Your task to perform on an android device: turn off location history Image 0: 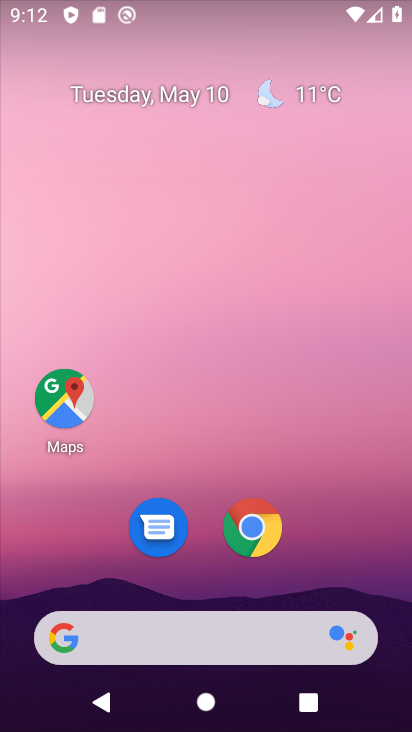
Step 0: click (365, 499)
Your task to perform on an android device: turn off location history Image 1: 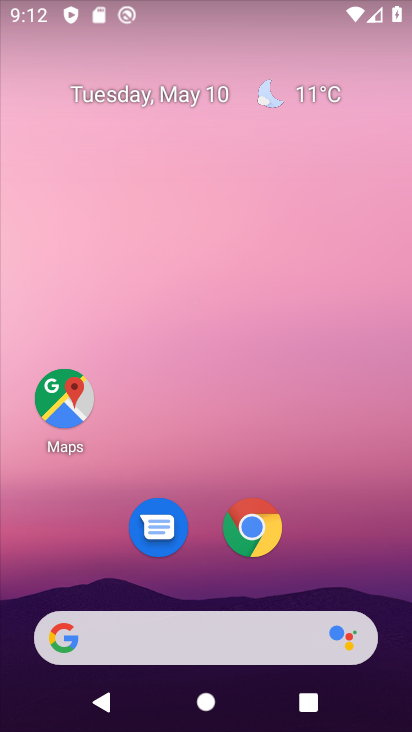
Step 1: drag from (368, 529) to (304, 185)
Your task to perform on an android device: turn off location history Image 2: 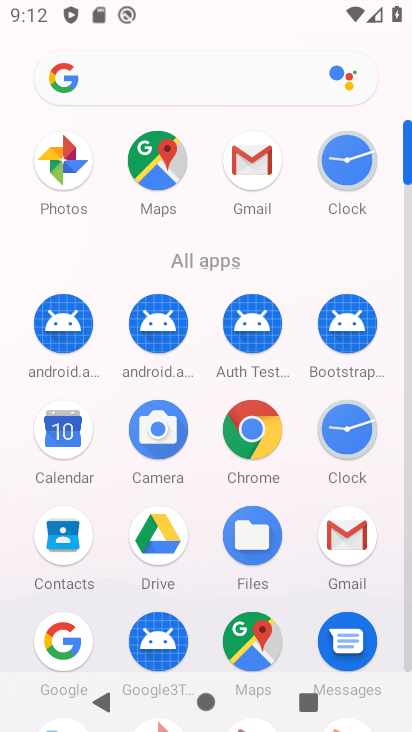
Step 2: drag from (199, 518) to (150, 227)
Your task to perform on an android device: turn off location history Image 3: 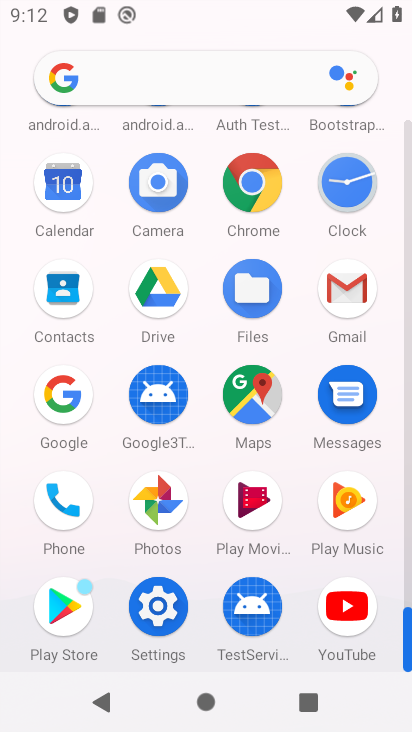
Step 3: click (160, 609)
Your task to perform on an android device: turn off location history Image 4: 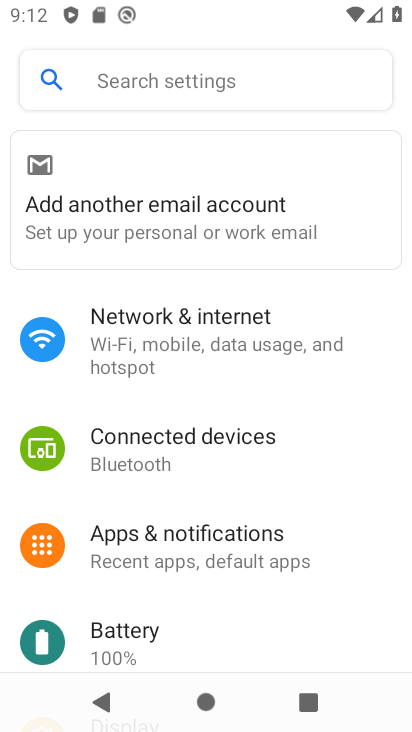
Step 4: drag from (242, 566) to (145, 170)
Your task to perform on an android device: turn off location history Image 5: 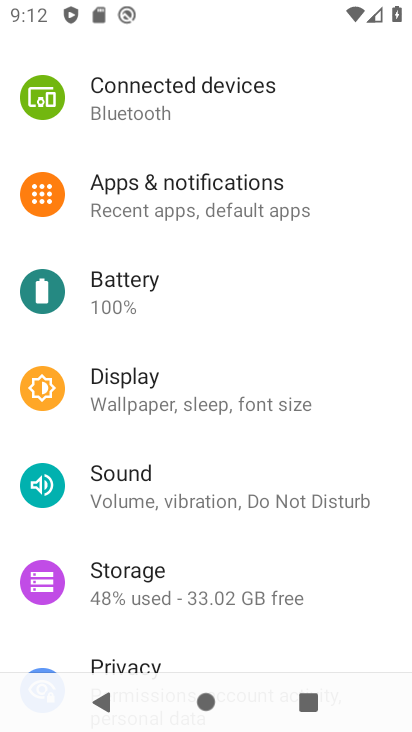
Step 5: drag from (239, 590) to (168, 287)
Your task to perform on an android device: turn off location history Image 6: 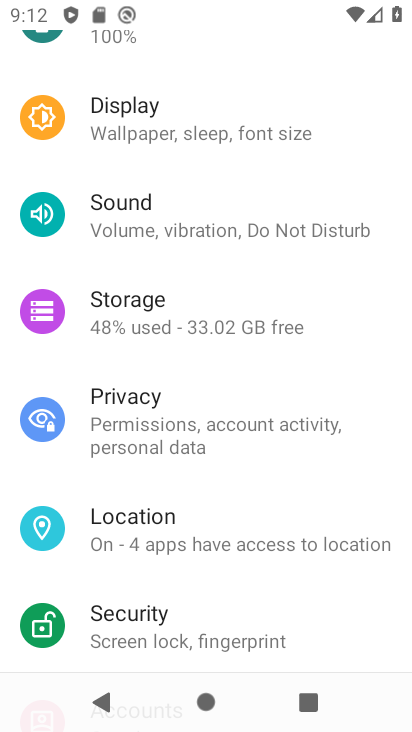
Step 6: click (246, 536)
Your task to perform on an android device: turn off location history Image 7: 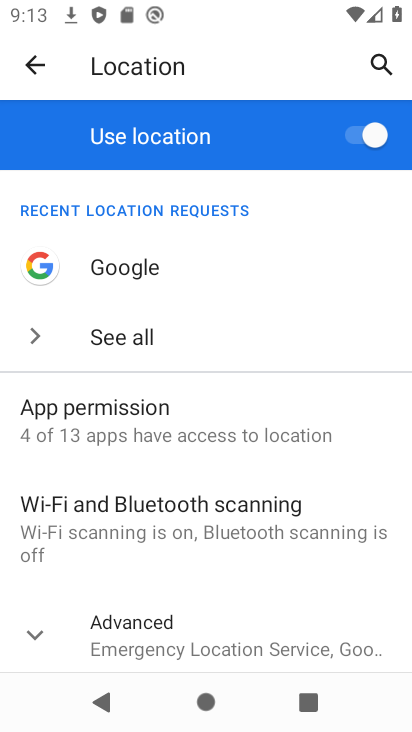
Step 7: click (244, 621)
Your task to perform on an android device: turn off location history Image 8: 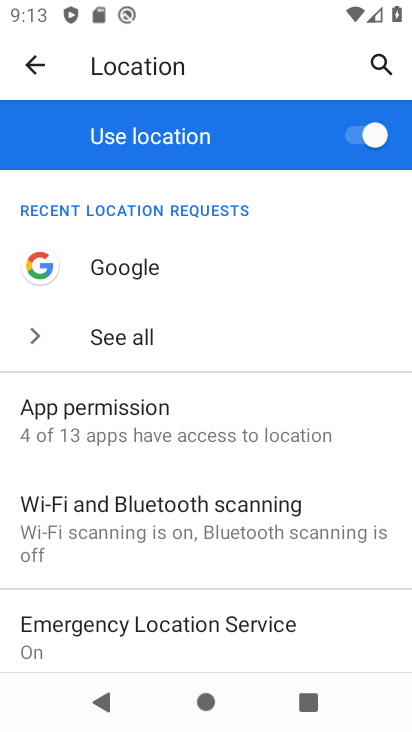
Step 8: drag from (243, 632) to (214, 397)
Your task to perform on an android device: turn off location history Image 9: 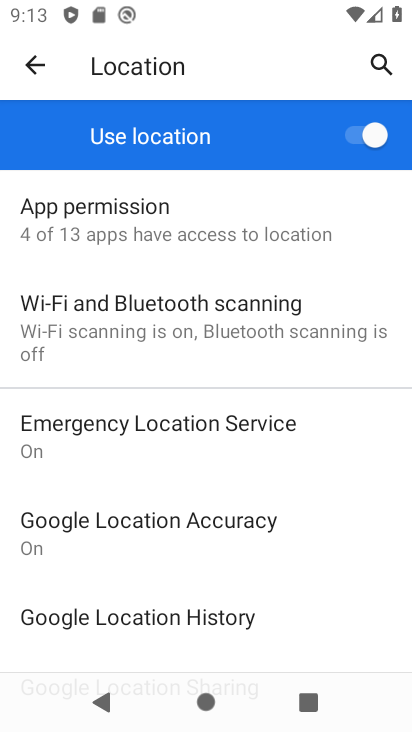
Step 9: click (241, 614)
Your task to perform on an android device: turn off location history Image 10: 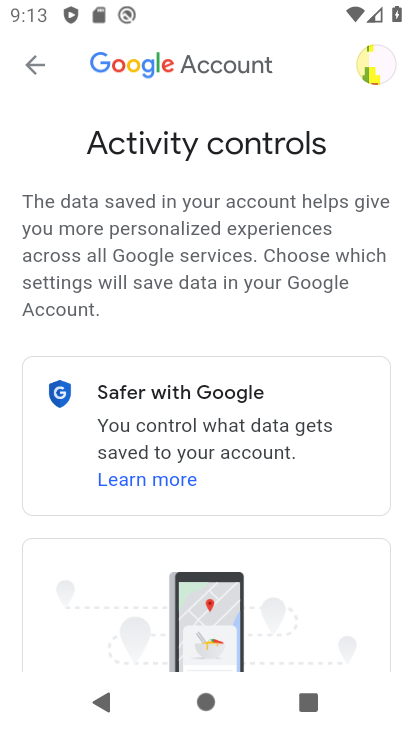
Step 10: drag from (337, 483) to (291, 234)
Your task to perform on an android device: turn off location history Image 11: 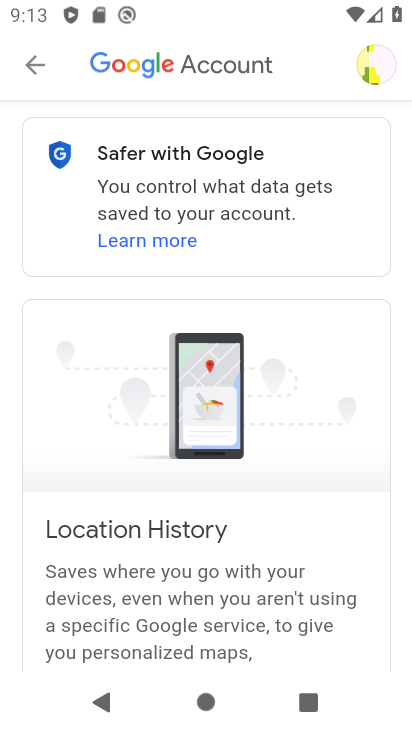
Step 11: drag from (325, 544) to (230, 217)
Your task to perform on an android device: turn off location history Image 12: 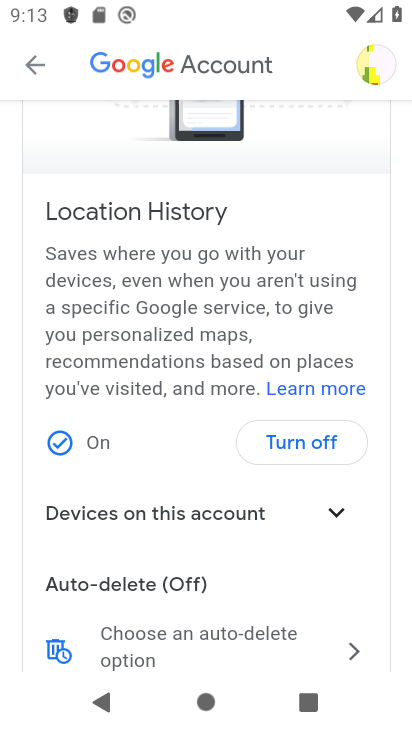
Step 12: click (275, 445)
Your task to perform on an android device: turn off location history Image 13: 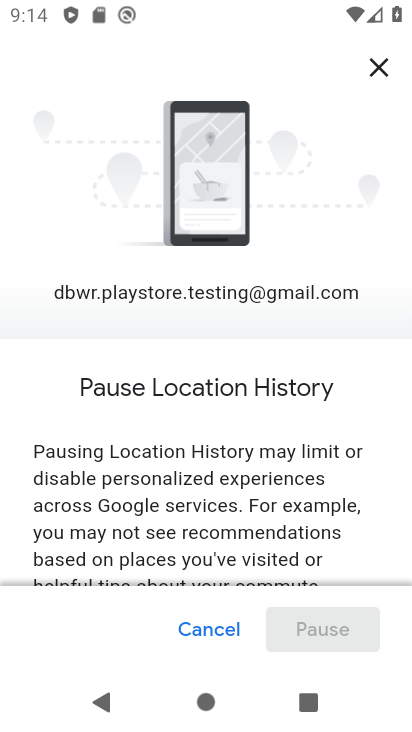
Step 13: drag from (305, 542) to (255, 265)
Your task to perform on an android device: turn off location history Image 14: 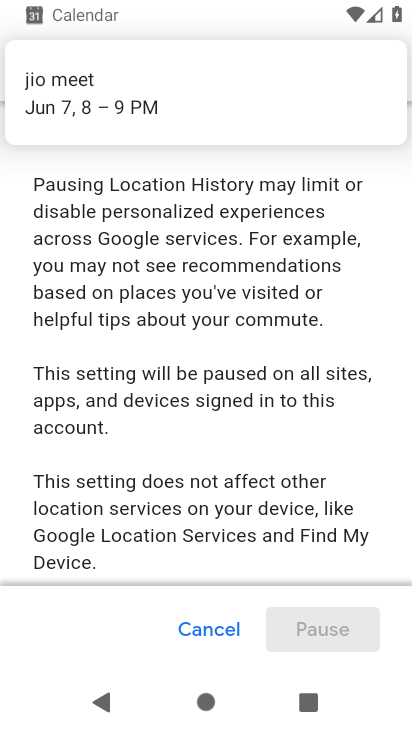
Step 14: drag from (331, 478) to (280, 207)
Your task to perform on an android device: turn off location history Image 15: 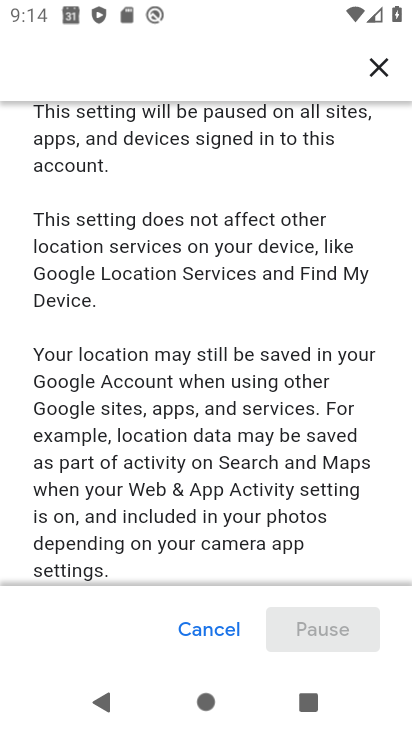
Step 15: drag from (326, 472) to (299, 224)
Your task to perform on an android device: turn off location history Image 16: 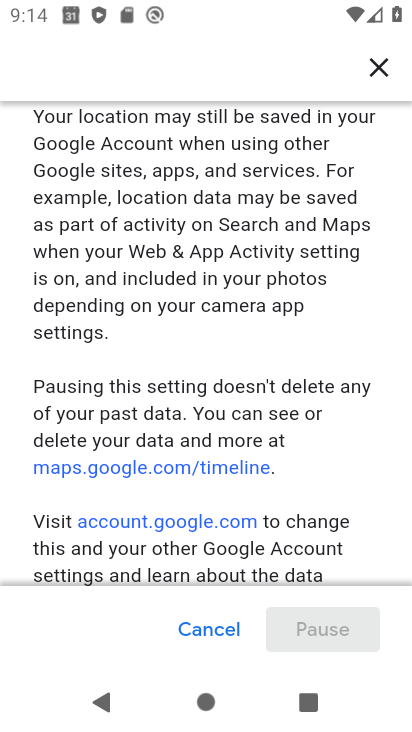
Step 16: drag from (359, 527) to (327, 262)
Your task to perform on an android device: turn off location history Image 17: 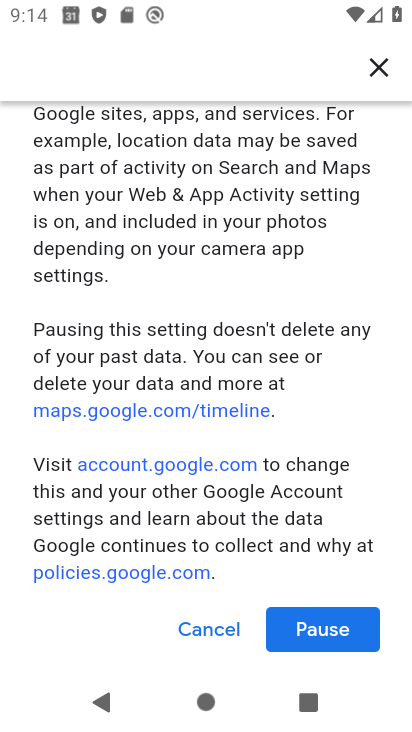
Step 17: click (360, 626)
Your task to perform on an android device: turn off location history Image 18: 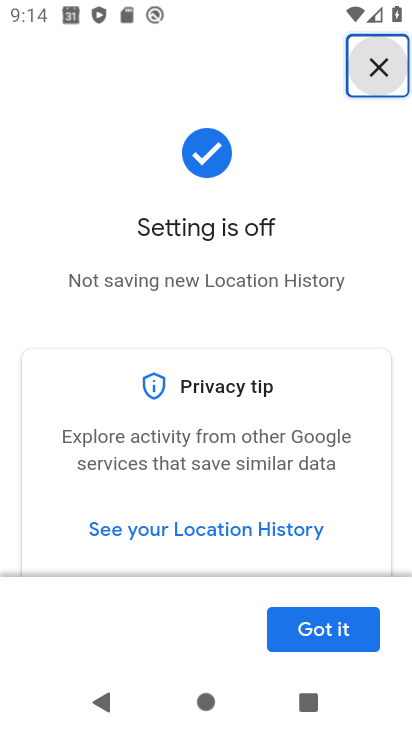
Step 18: click (332, 626)
Your task to perform on an android device: turn off location history Image 19: 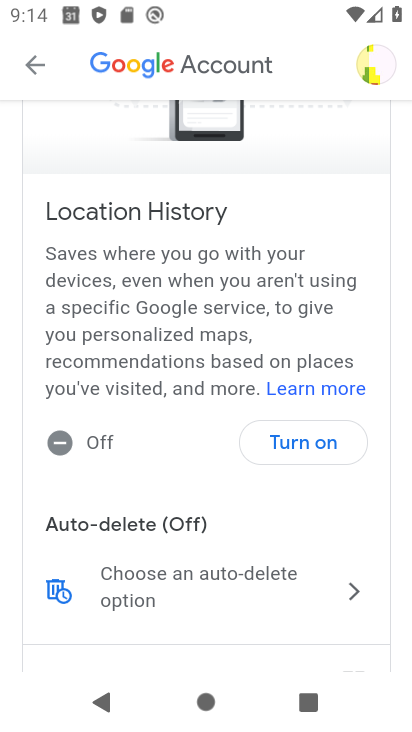
Step 19: task complete